Your task to perform on an android device: Open Youtube and go to "Your channel" Image 0: 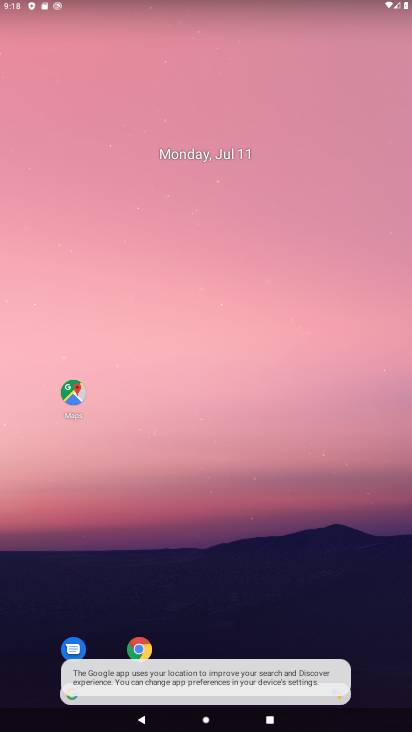
Step 0: drag from (227, 614) to (336, 100)
Your task to perform on an android device: Open Youtube and go to "Your channel" Image 1: 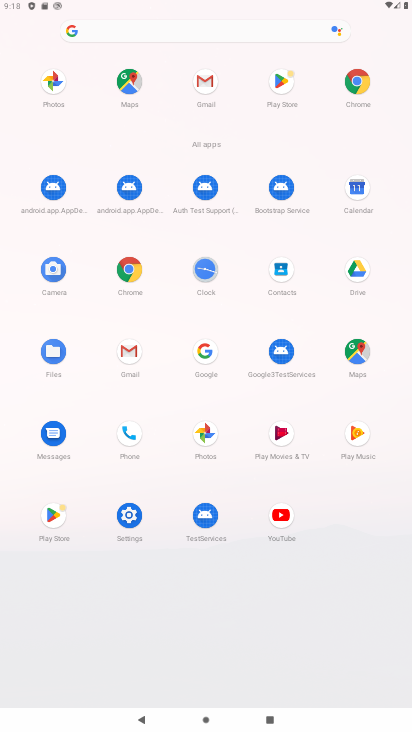
Step 1: click (271, 522)
Your task to perform on an android device: Open Youtube and go to "Your channel" Image 2: 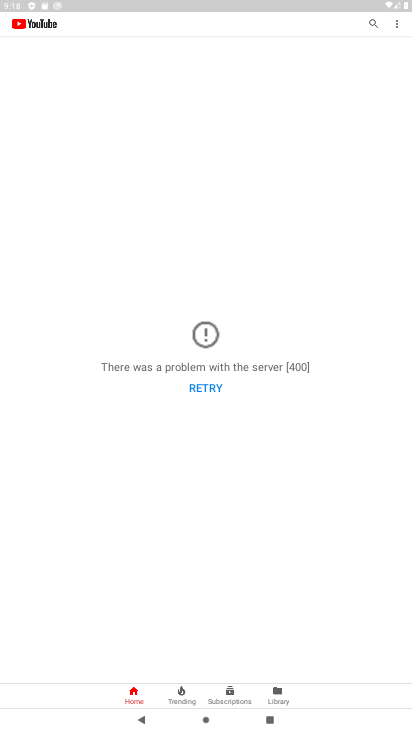
Step 2: click (267, 693)
Your task to perform on an android device: Open Youtube and go to "Your channel" Image 3: 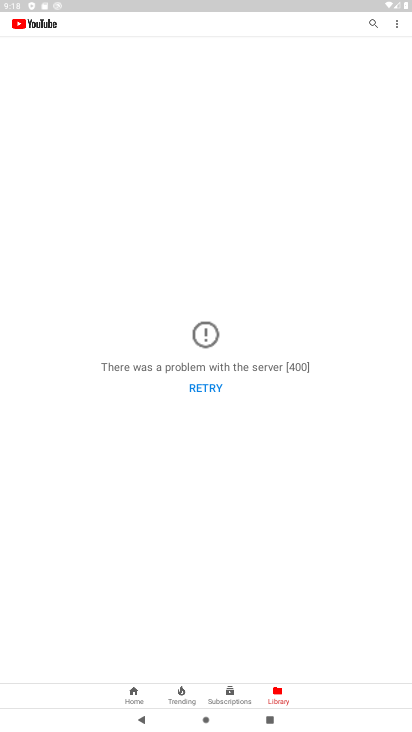
Step 3: task complete